Your task to perform on an android device: change the clock style Image 0: 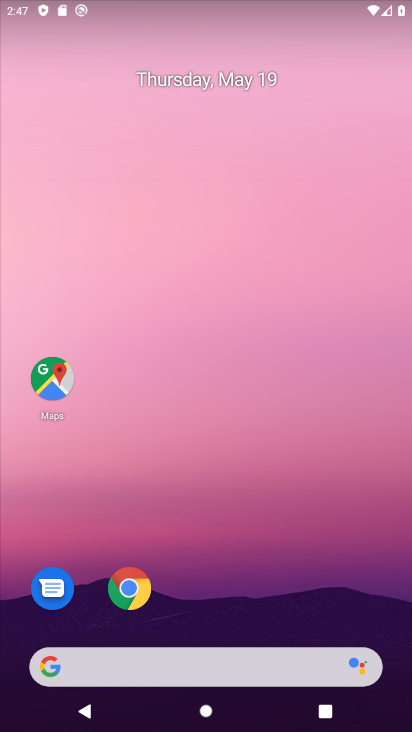
Step 0: drag from (338, 589) to (296, 323)
Your task to perform on an android device: change the clock style Image 1: 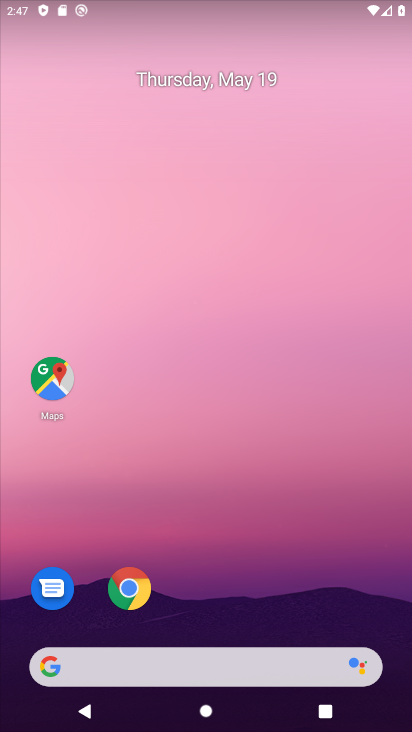
Step 1: drag from (318, 594) to (321, 297)
Your task to perform on an android device: change the clock style Image 2: 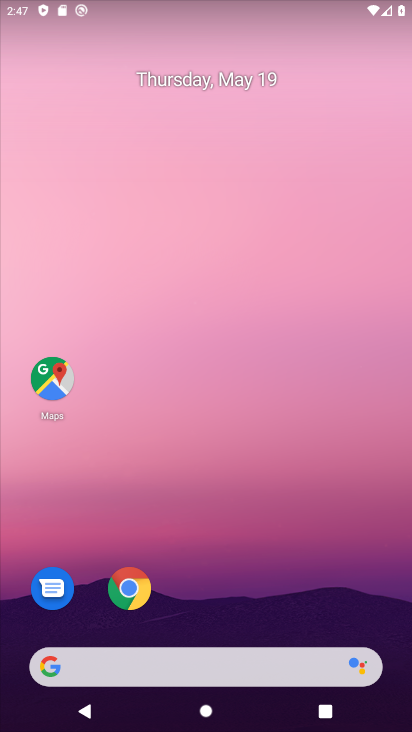
Step 2: drag from (318, 515) to (320, 192)
Your task to perform on an android device: change the clock style Image 3: 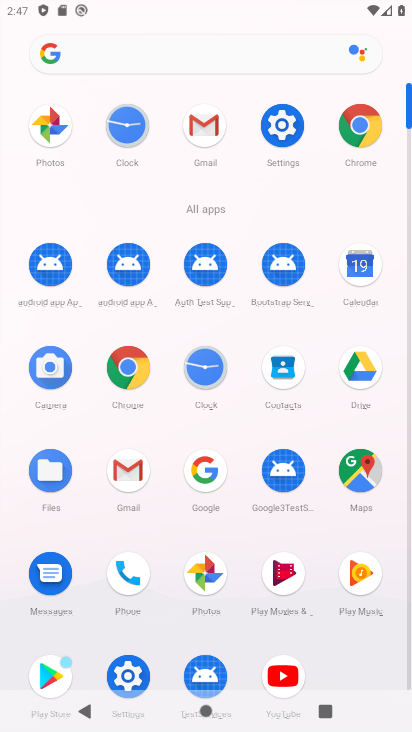
Step 3: click (218, 381)
Your task to perform on an android device: change the clock style Image 4: 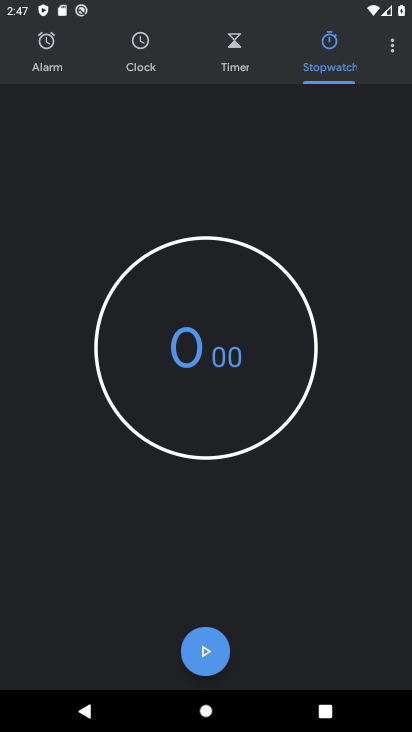
Step 4: drag from (396, 41) to (346, 81)
Your task to perform on an android device: change the clock style Image 5: 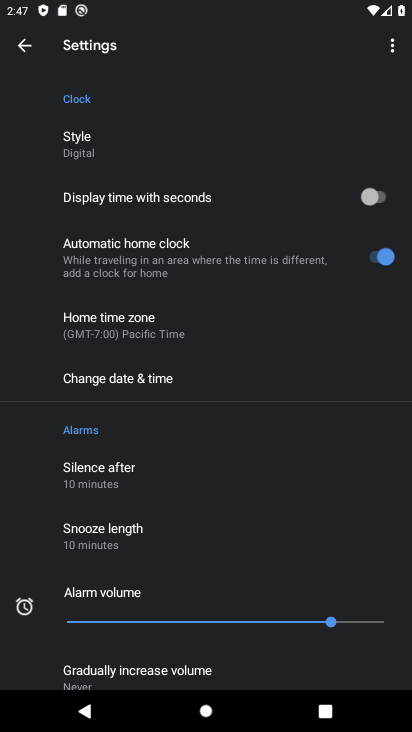
Step 5: click (89, 145)
Your task to perform on an android device: change the clock style Image 6: 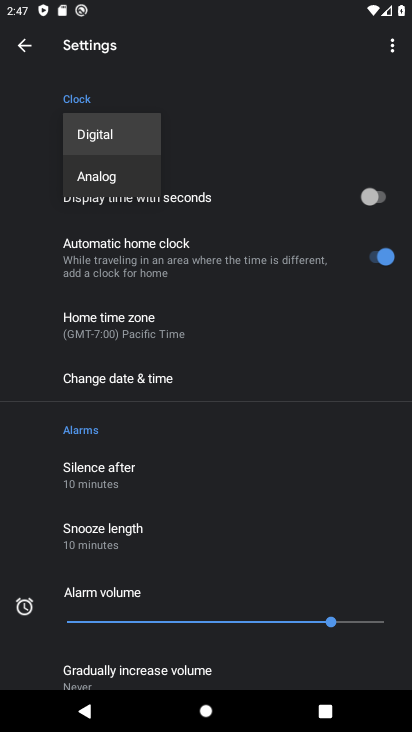
Step 6: click (101, 169)
Your task to perform on an android device: change the clock style Image 7: 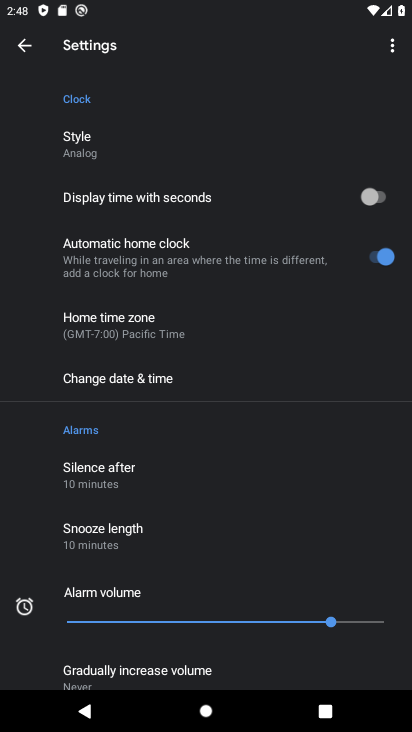
Step 7: task complete